Your task to perform on an android device: change the clock display to show seconds Image 0: 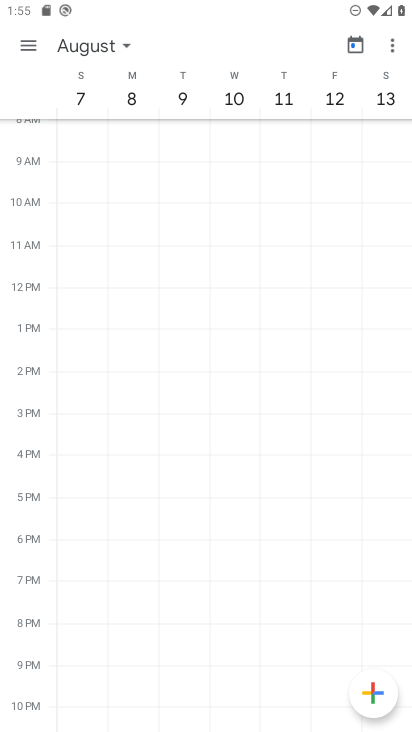
Step 0: press home button
Your task to perform on an android device: change the clock display to show seconds Image 1: 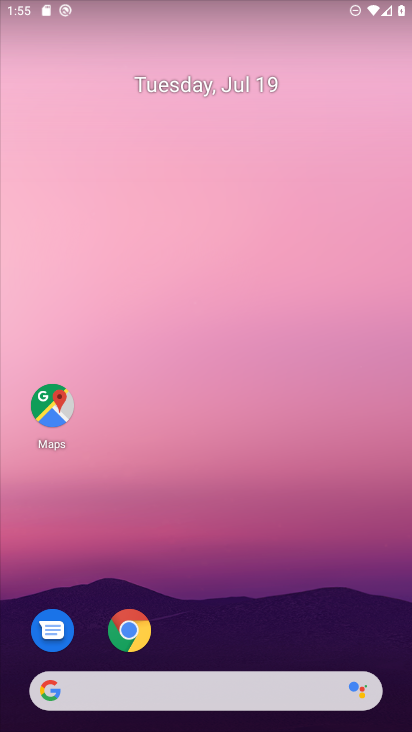
Step 1: drag from (141, 686) to (235, 175)
Your task to perform on an android device: change the clock display to show seconds Image 2: 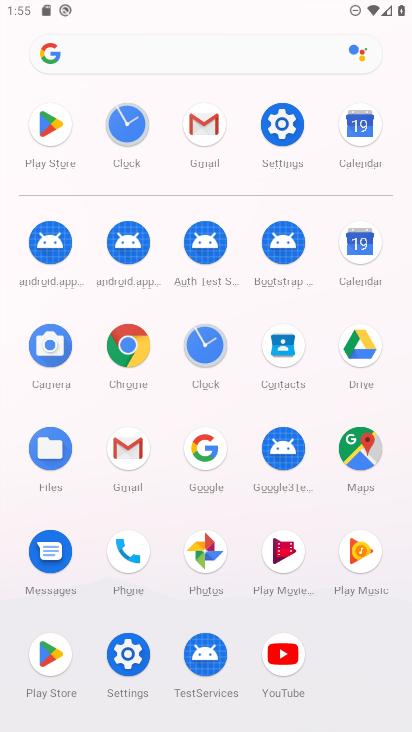
Step 2: click (124, 121)
Your task to perform on an android device: change the clock display to show seconds Image 3: 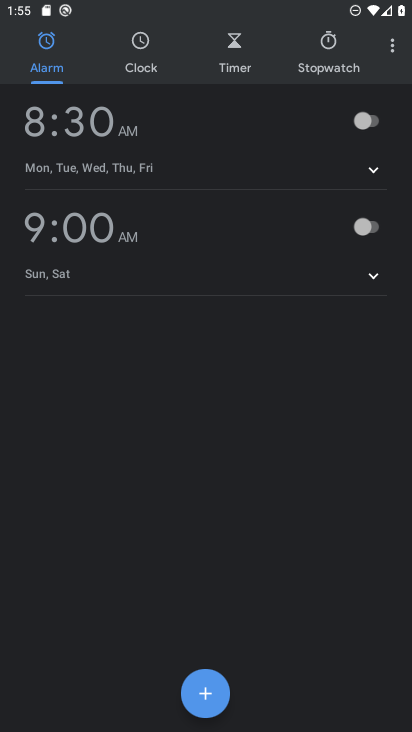
Step 3: click (392, 49)
Your task to perform on an android device: change the clock display to show seconds Image 4: 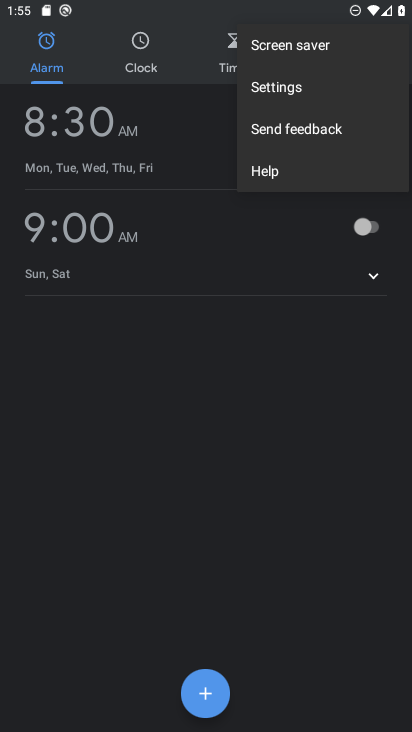
Step 4: click (291, 92)
Your task to perform on an android device: change the clock display to show seconds Image 5: 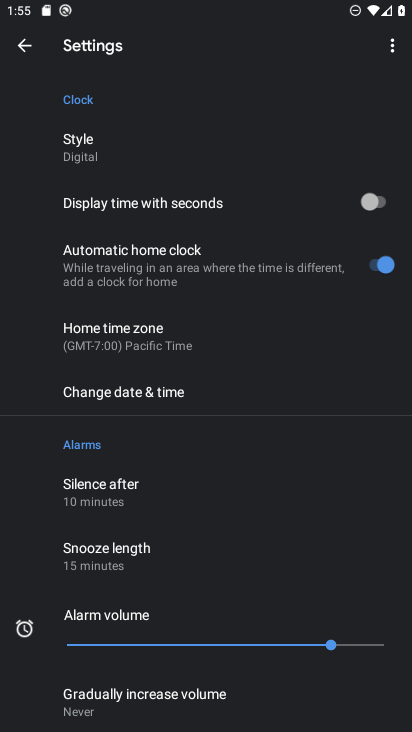
Step 5: click (381, 194)
Your task to perform on an android device: change the clock display to show seconds Image 6: 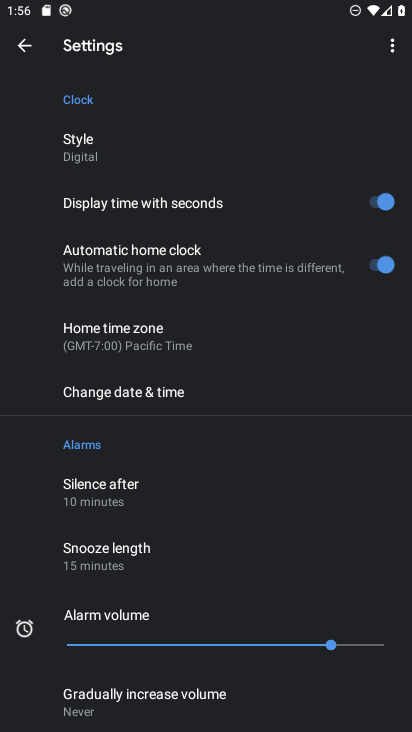
Step 6: task complete